Your task to perform on an android device: Open CNN.com Image 0: 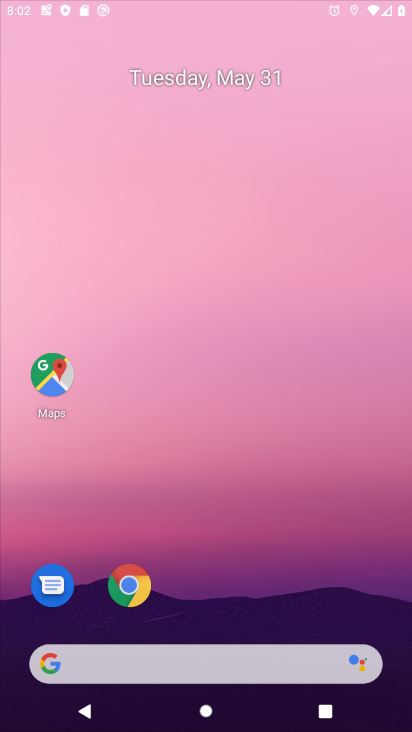
Step 0: click (134, 591)
Your task to perform on an android device: Open CNN.com Image 1: 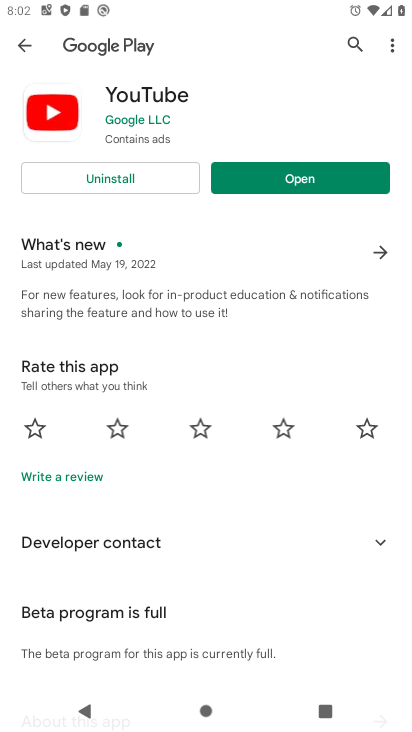
Step 1: press home button
Your task to perform on an android device: Open CNN.com Image 2: 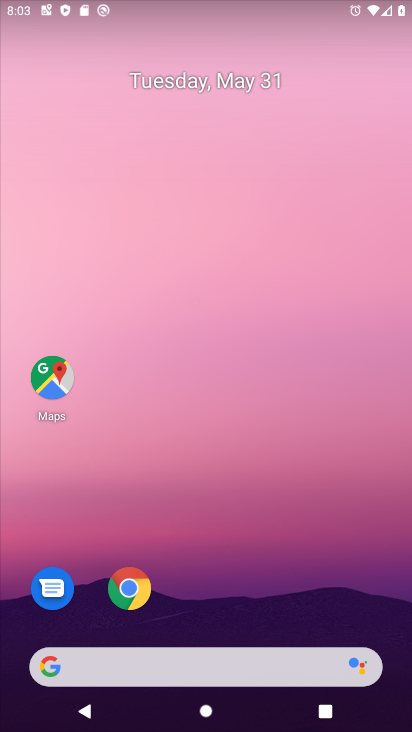
Step 2: click (128, 581)
Your task to perform on an android device: Open CNN.com Image 3: 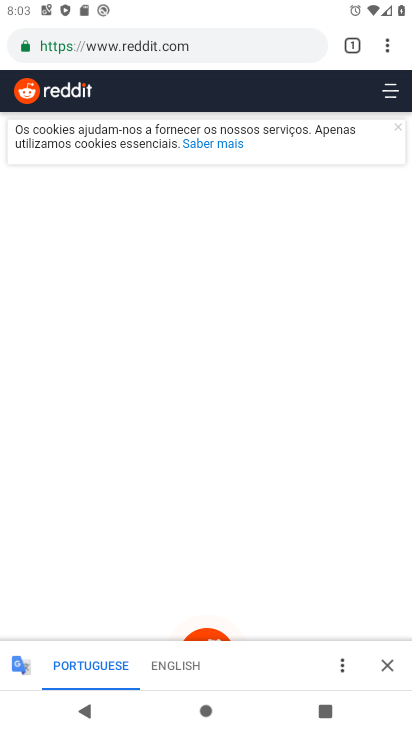
Step 3: click (187, 50)
Your task to perform on an android device: Open CNN.com Image 4: 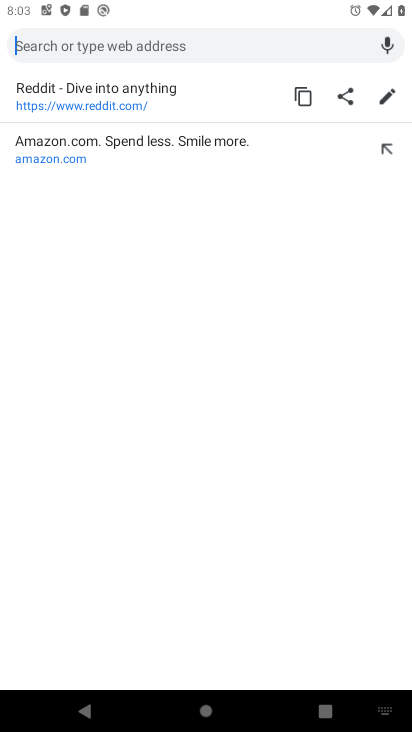
Step 4: type "CNN.com"
Your task to perform on an android device: Open CNN.com Image 5: 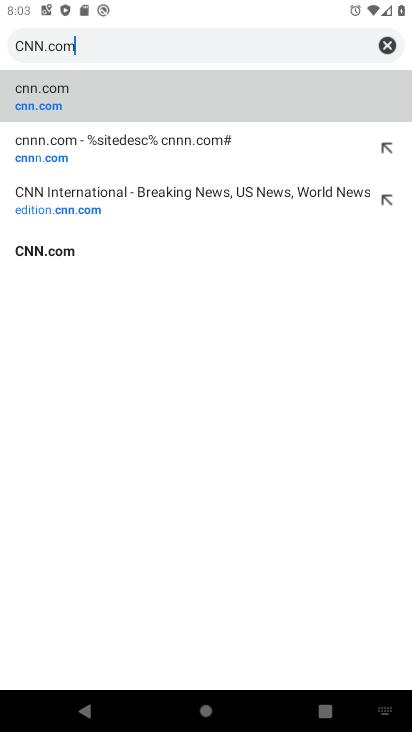
Step 5: click (73, 258)
Your task to perform on an android device: Open CNN.com Image 6: 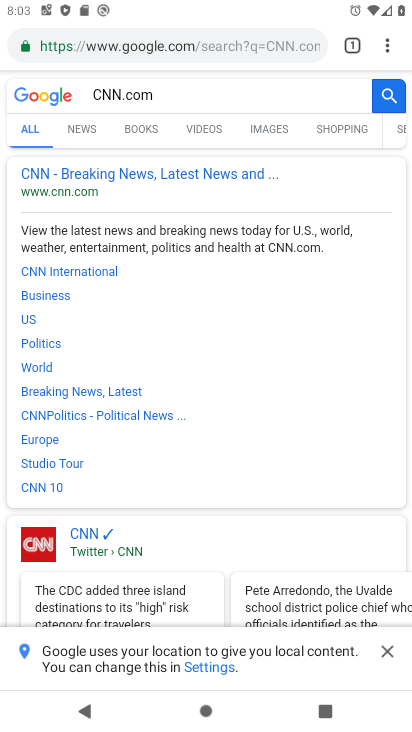
Step 6: task complete